Your task to perform on an android device: Go to network settings Image 0: 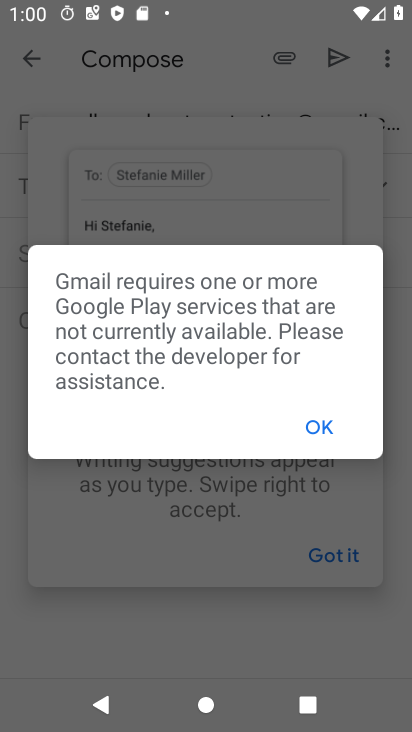
Step 0: press home button
Your task to perform on an android device: Go to network settings Image 1: 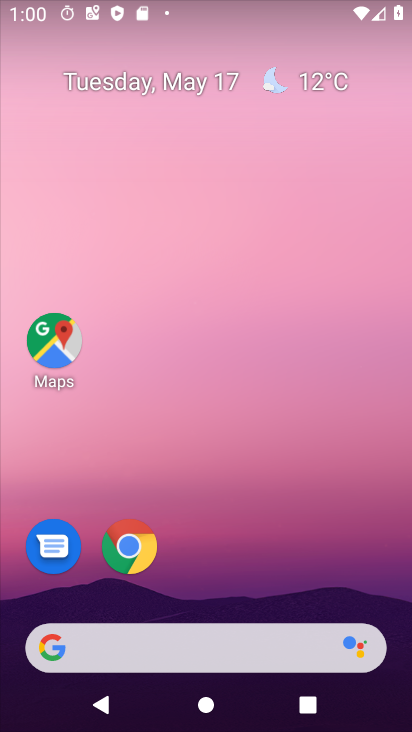
Step 1: drag from (179, 653) to (302, 213)
Your task to perform on an android device: Go to network settings Image 2: 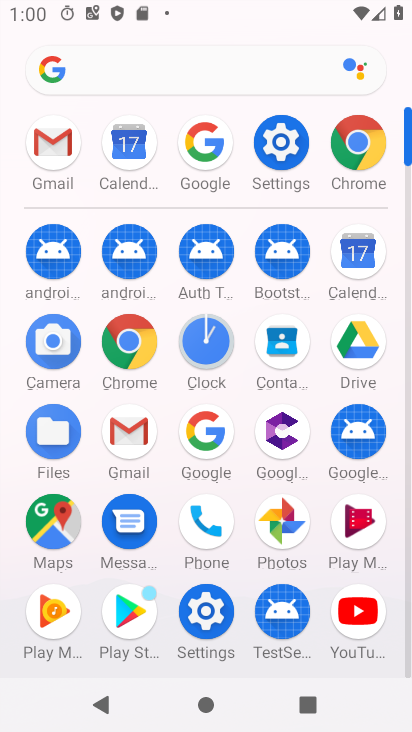
Step 2: click (270, 148)
Your task to perform on an android device: Go to network settings Image 3: 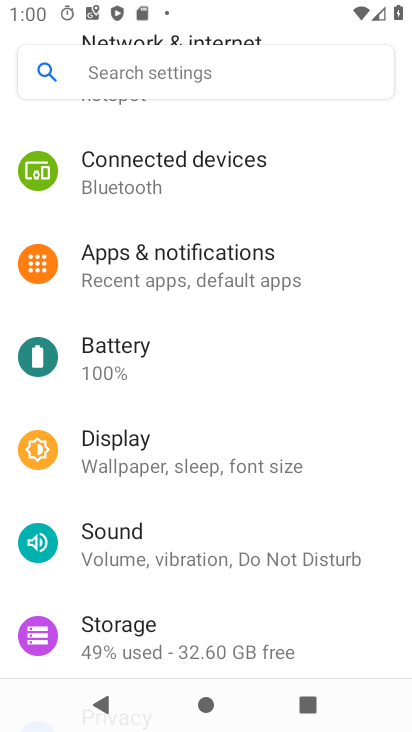
Step 3: drag from (313, 184) to (196, 562)
Your task to perform on an android device: Go to network settings Image 4: 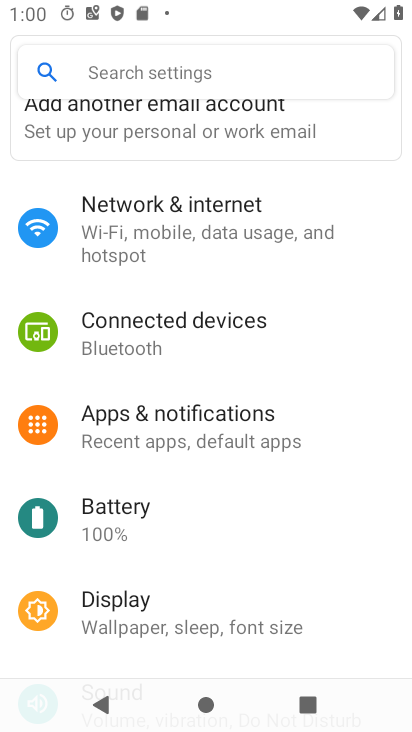
Step 4: click (209, 222)
Your task to perform on an android device: Go to network settings Image 5: 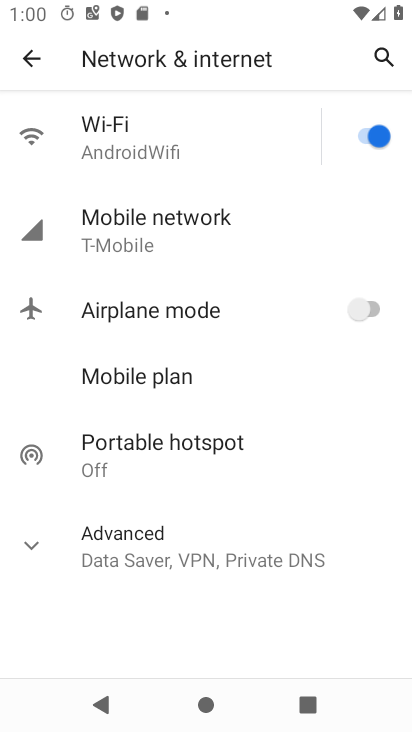
Step 5: task complete